Your task to perform on an android device: Do I have any events today? Image 0: 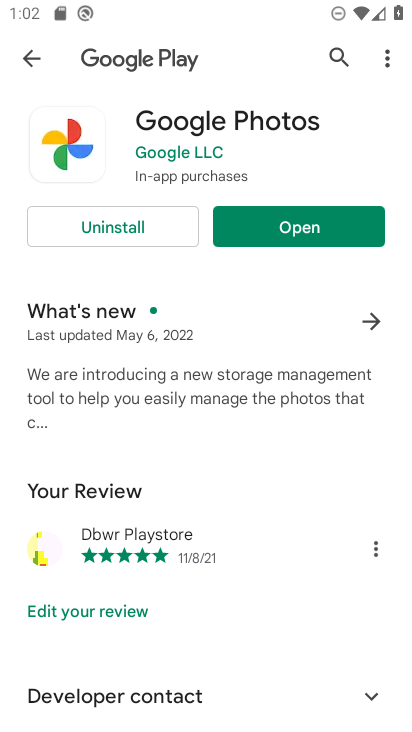
Step 0: press home button
Your task to perform on an android device: Do I have any events today? Image 1: 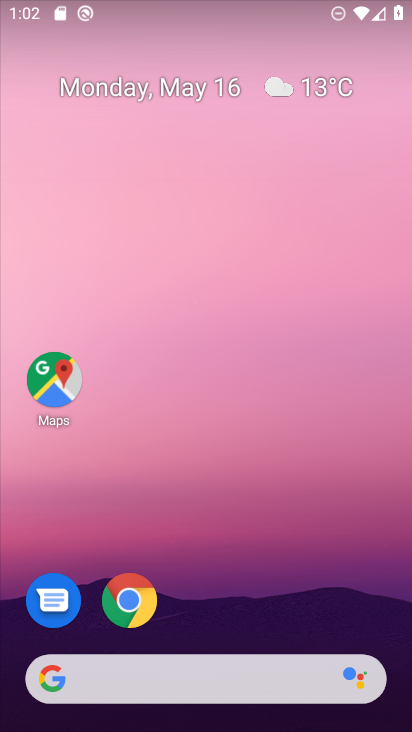
Step 1: drag from (233, 638) to (254, 103)
Your task to perform on an android device: Do I have any events today? Image 2: 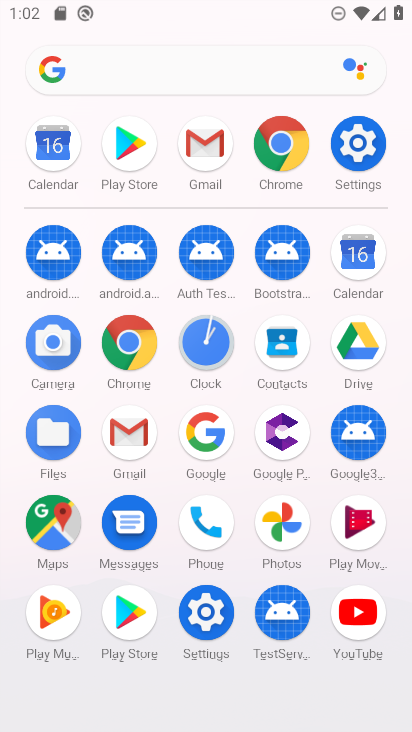
Step 2: click (355, 246)
Your task to perform on an android device: Do I have any events today? Image 3: 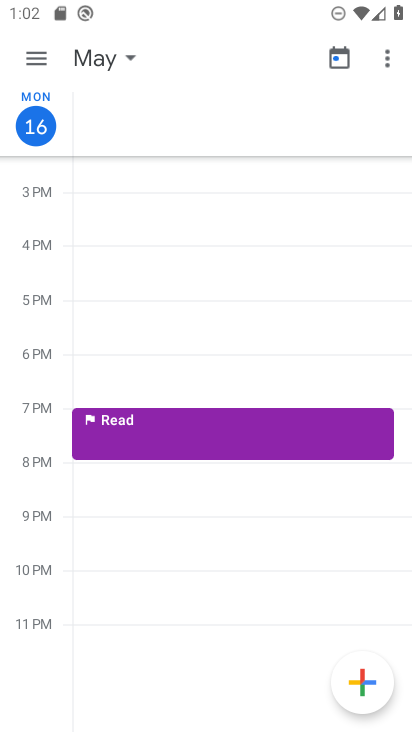
Step 3: task complete